Your task to perform on an android device: turn notification dots off Image 0: 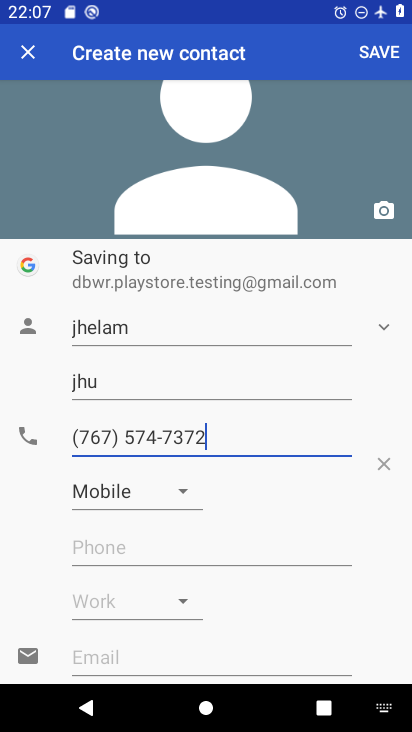
Step 0: press home button
Your task to perform on an android device: turn notification dots off Image 1: 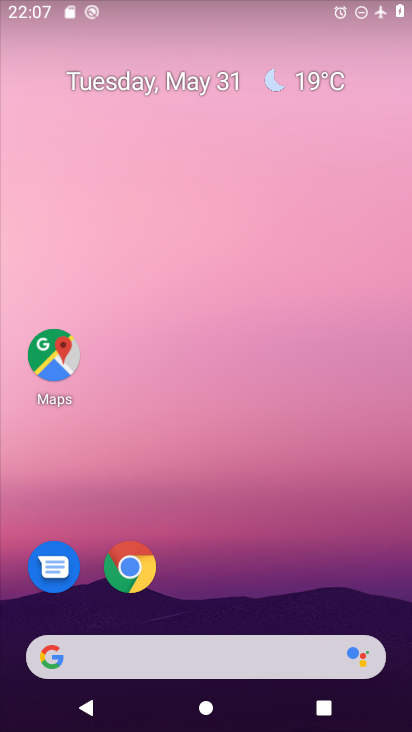
Step 1: click (208, 383)
Your task to perform on an android device: turn notification dots off Image 2: 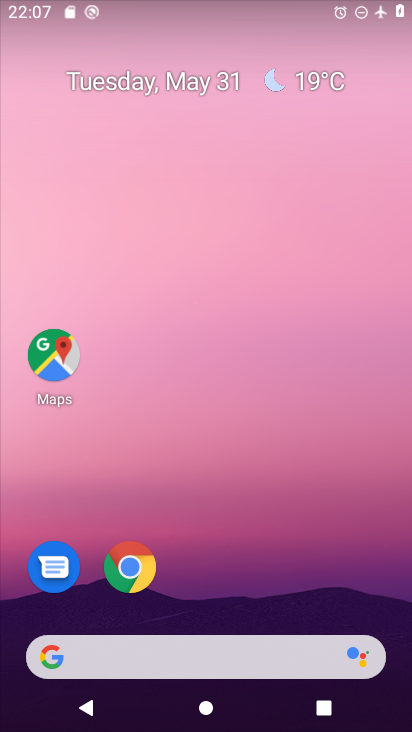
Step 2: drag from (218, 637) to (249, 261)
Your task to perform on an android device: turn notification dots off Image 3: 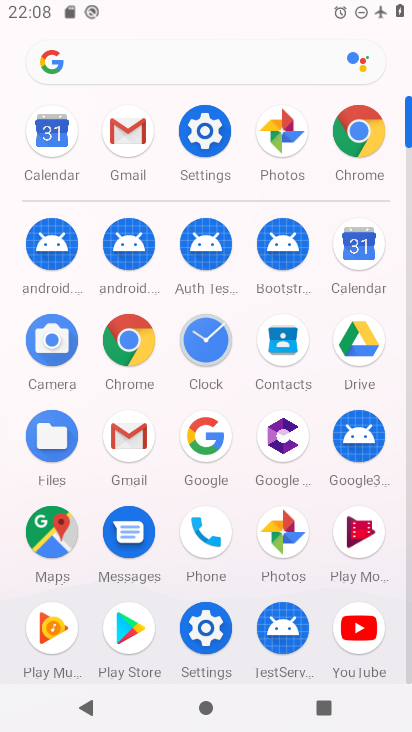
Step 3: click (214, 152)
Your task to perform on an android device: turn notification dots off Image 4: 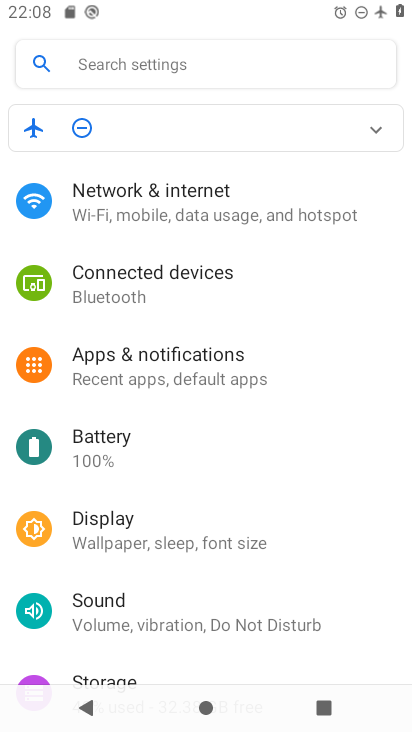
Step 4: click (186, 368)
Your task to perform on an android device: turn notification dots off Image 5: 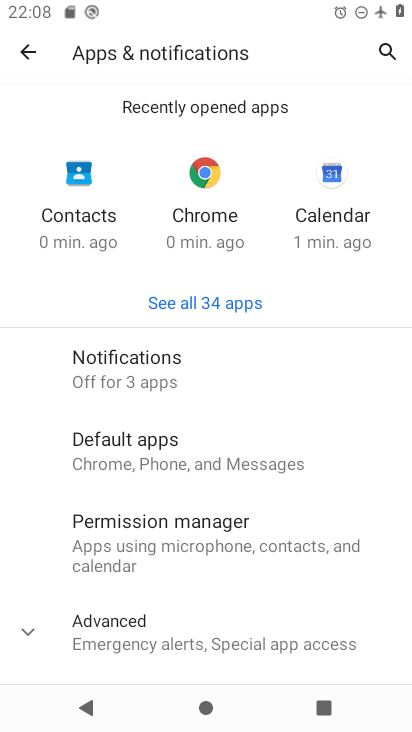
Step 5: click (100, 630)
Your task to perform on an android device: turn notification dots off Image 6: 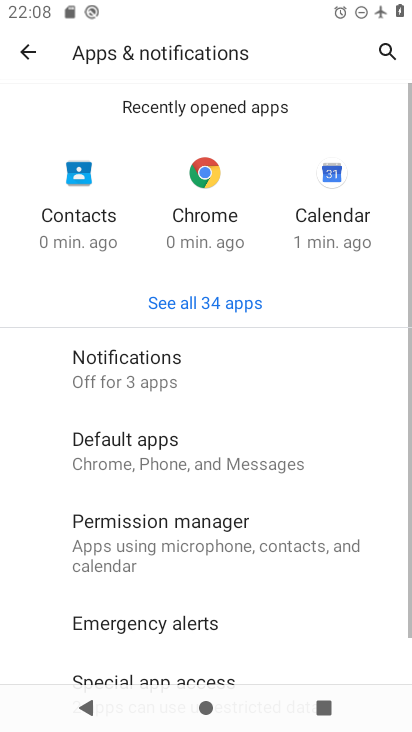
Step 6: drag from (161, 582) to (197, 328)
Your task to perform on an android device: turn notification dots off Image 7: 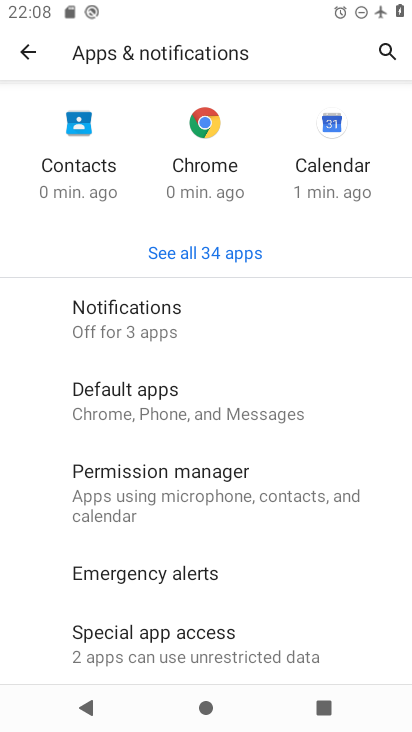
Step 7: drag from (197, 644) to (212, 428)
Your task to perform on an android device: turn notification dots off Image 8: 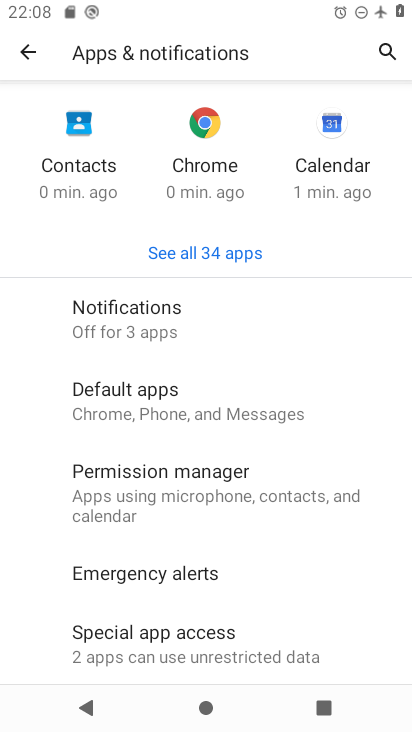
Step 8: click (148, 329)
Your task to perform on an android device: turn notification dots off Image 9: 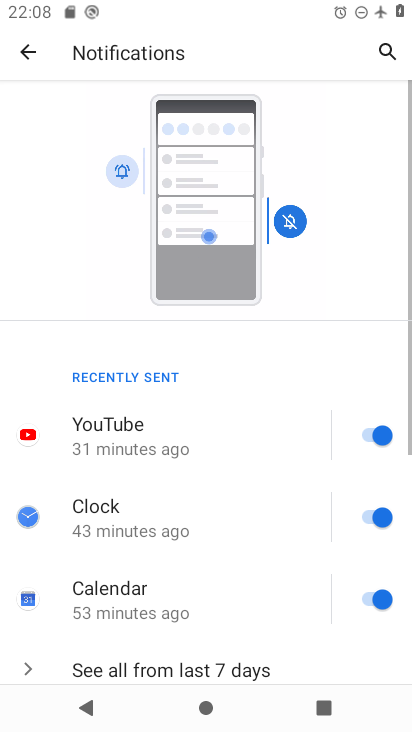
Step 9: drag from (193, 637) to (220, 320)
Your task to perform on an android device: turn notification dots off Image 10: 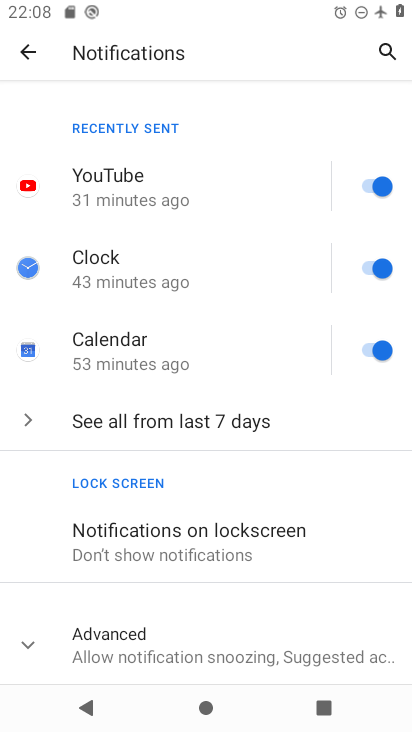
Step 10: click (135, 649)
Your task to perform on an android device: turn notification dots off Image 11: 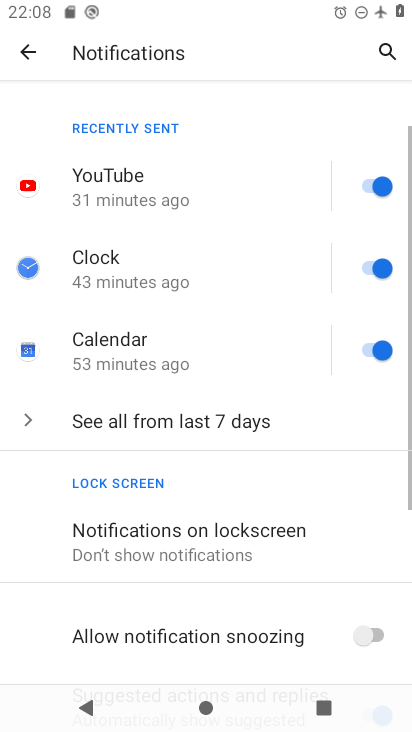
Step 11: drag from (246, 649) to (284, 383)
Your task to perform on an android device: turn notification dots off Image 12: 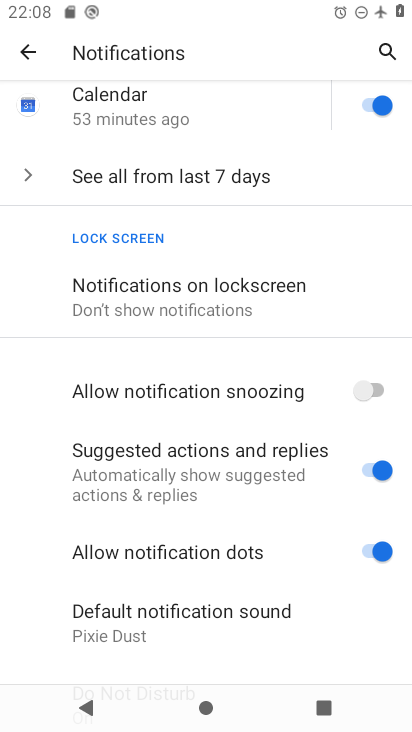
Step 12: click (369, 551)
Your task to perform on an android device: turn notification dots off Image 13: 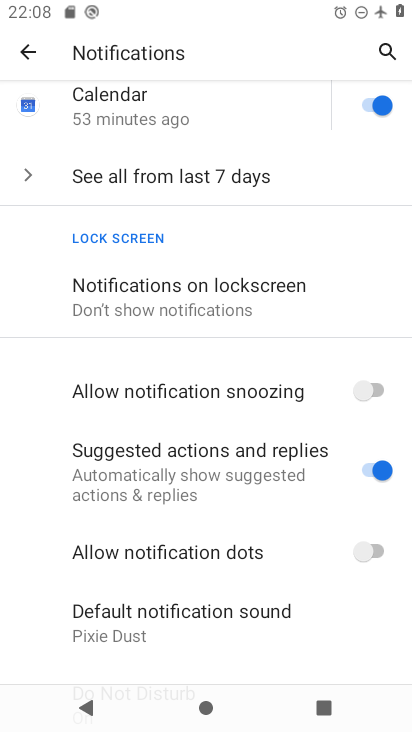
Step 13: task complete